Your task to perform on an android device: Open calendar and show me the first week of next month Image 0: 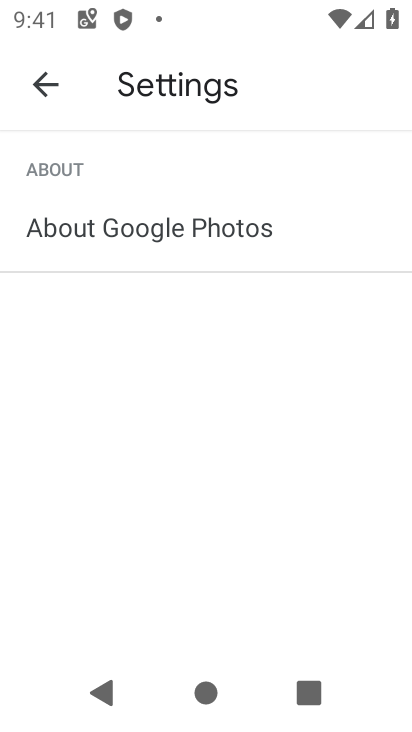
Step 0: press home button
Your task to perform on an android device: Open calendar and show me the first week of next month Image 1: 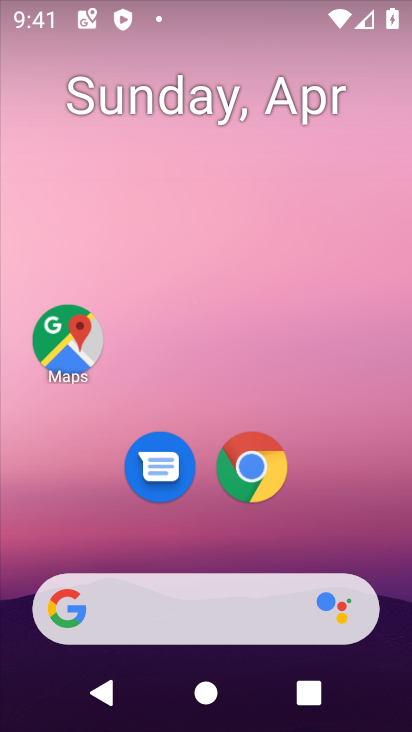
Step 1: drag from (204, 531) to (208, 265)
Your task to perform on an android device: Open calendar and show me the first week of next month Image 2: 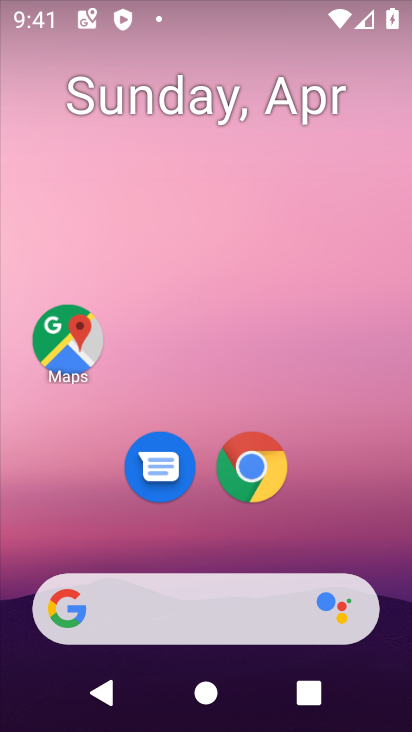
Step 2: drag from (199, 520) to (234, 14)
Your task to perform on an android device: Open calendar and show me the first week of next month Image 3: 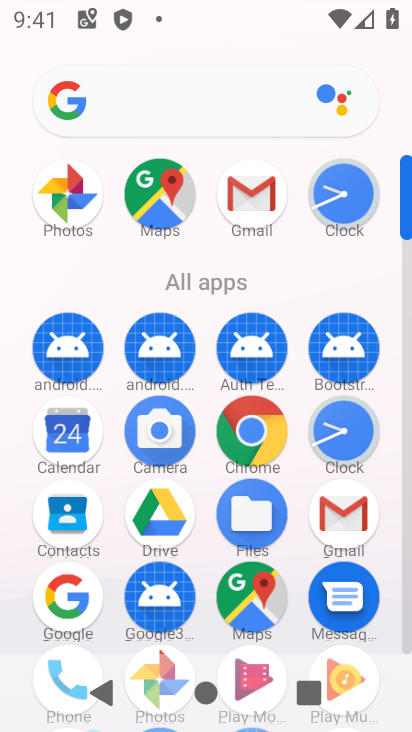
Step 3: click (77, 424)
Your task to perform on an android device: Open calendar and show me the first week of next month Image 4: 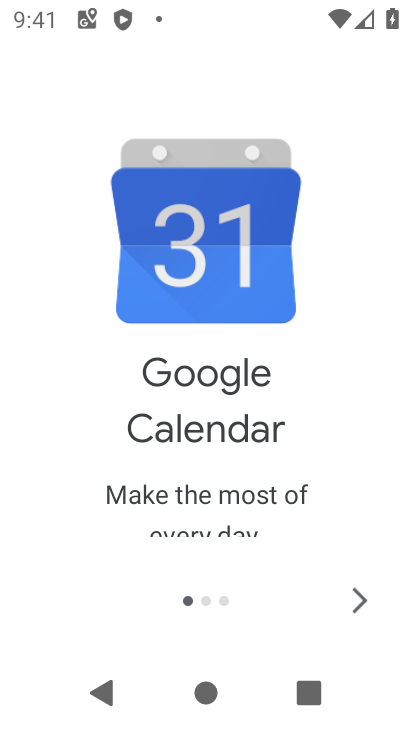
Step 4: click (364, 600)
Your task to perform on an android device: Open calendar and show me the first week of next month Image 5: 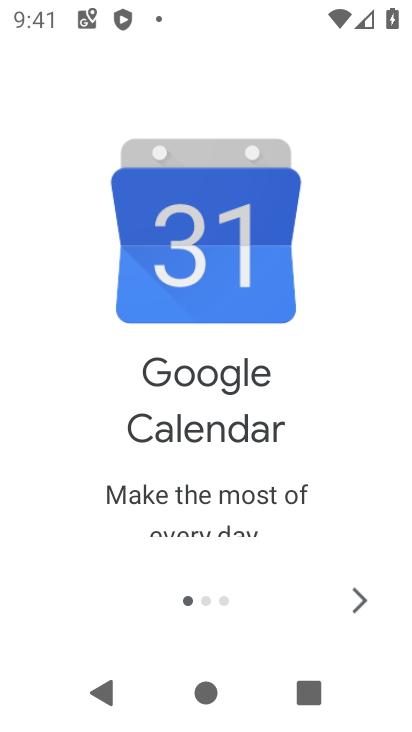
Step 5: click (364, 600)
Your task to perform on an android device: Open calendar and show me the first week of next month Image 6: 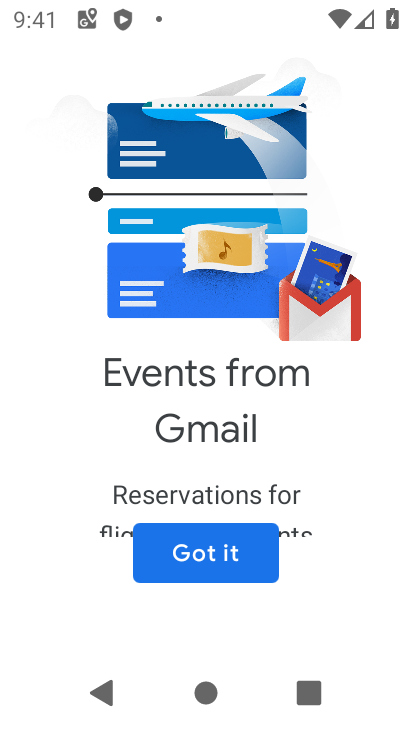
Step 6: click (364, 600)
Your task to perform on an android device: Open calendar and show me the first week of next month Image 7: 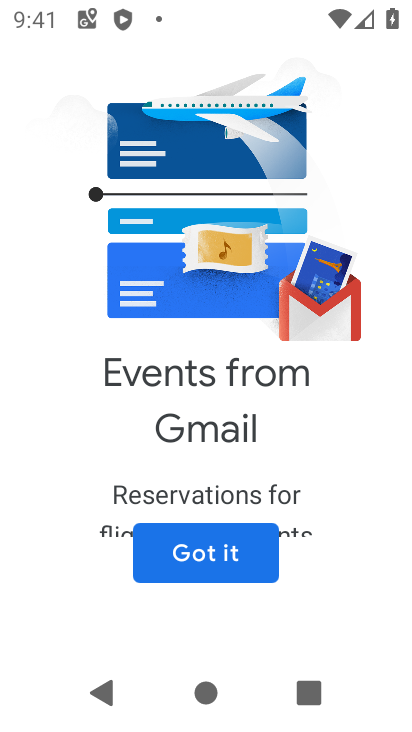
Step 7: click (221, 557)
Your task to perform on an android device: Open calendar and show me the first week of next month Image 8: 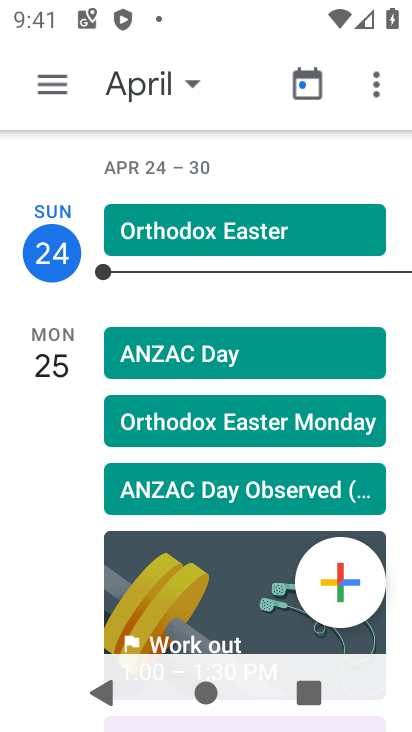
Step 8: click (54, 92)
Your task to perform on an android device: Open calendar and show me the first week of next month Image 9: 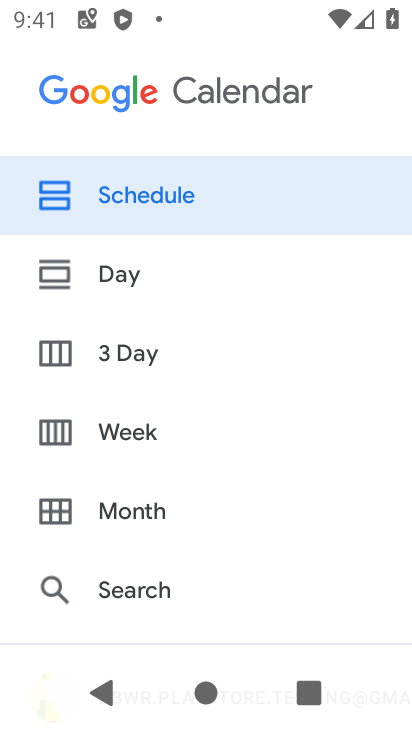
Step 9: click (163, 437)
Your task to perform on an android device: Open calendar and show me the first week of next month Image 10: 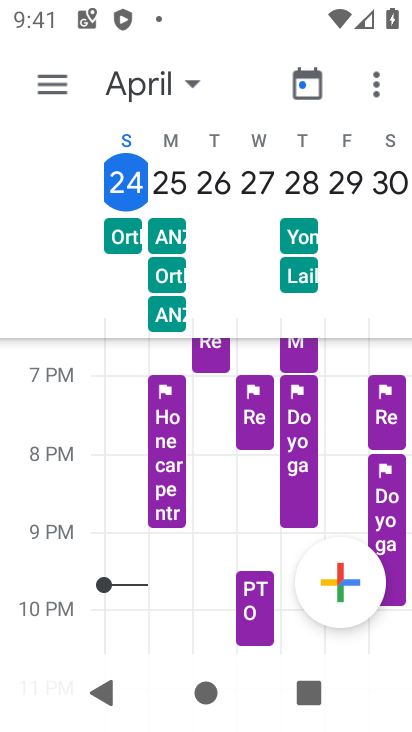
Step 10: click (158, 94)
Your task to perform on an android device: Open calendar and show me the first week of next month Image 11: 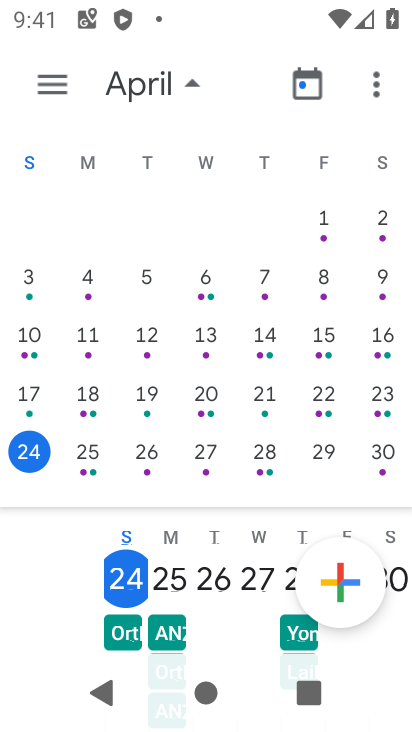
Step 11: drag from (330, 293) to (7, 287)
Your task to perform on an android device: Open calendar and show me the first week of next month Image 12: 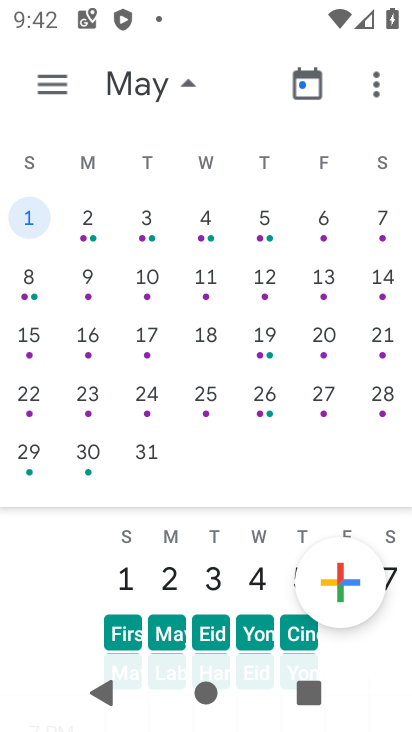
Step 12: click (187, 89)
Your task to perform on an android device: Open calendar and show me the first week of next month Image 13: 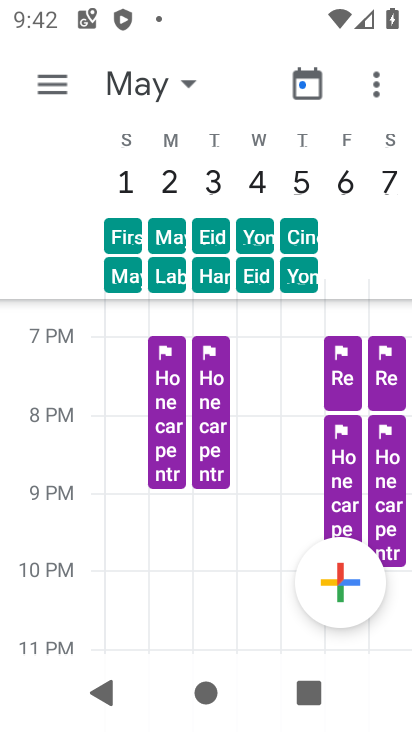
Step 13: task complete